Your task to perform on an android device: turn off location history Image 0: 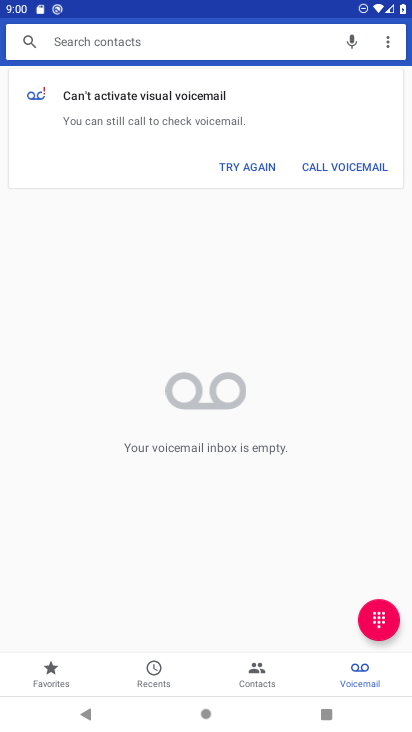
Step 0: press home button
Your task to perform on an android device: turn off location history Image 1: 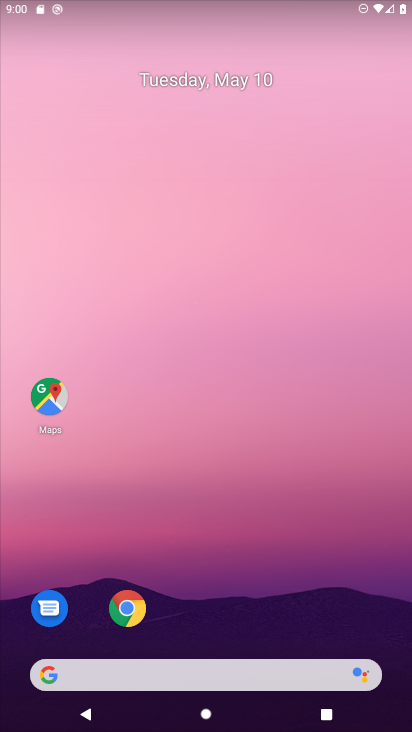
Step 1: drag from (352, 613) to (202, 16)
Your task to perform on an android device: turn off location history Image 2: 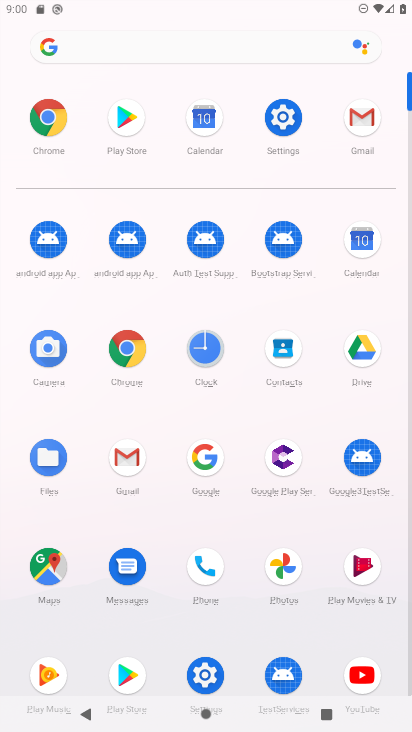
Step 2: click (194, 659)
Your task to perform on an android device: turn off location history Image 3: 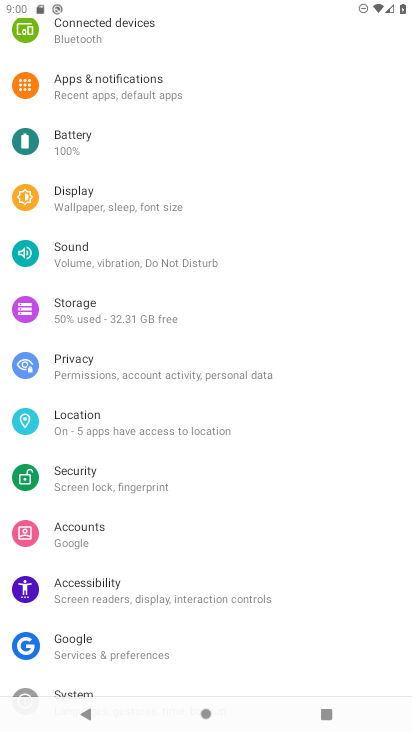
Step 3: click (134, 429)
Your task to perform on an android device: turn off location history Image 4: 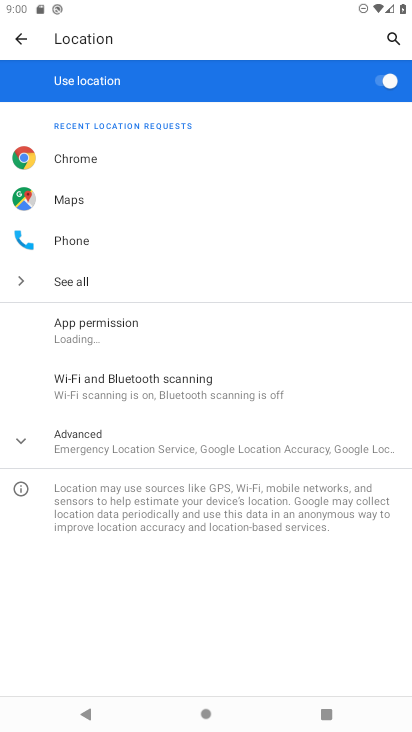
Step 4: click (39, 446)
Your task to perform on an android device: turn off location history Image 5: 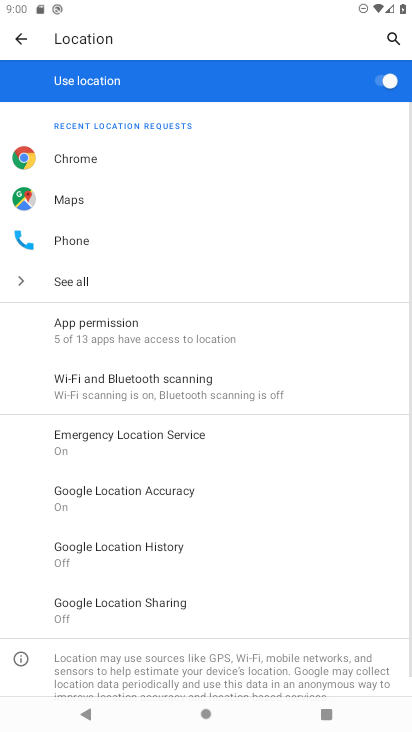
Step 5: click (144, 544)
Your task to perform on an android device: turn off location history Image 6: 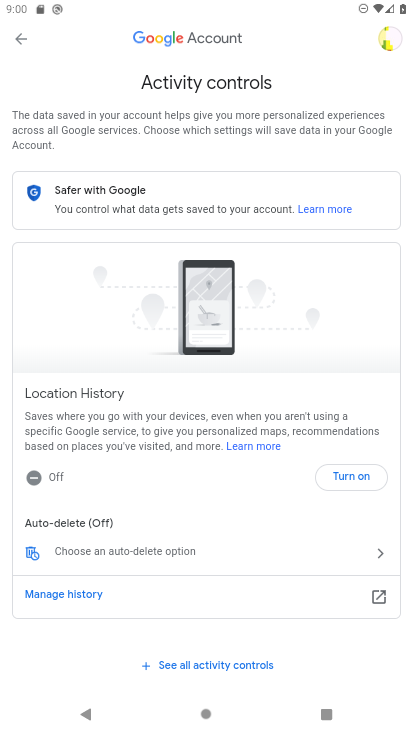
Step 6: click (350, 472)
Your task to perform on an android device: turn off location history Image 7: 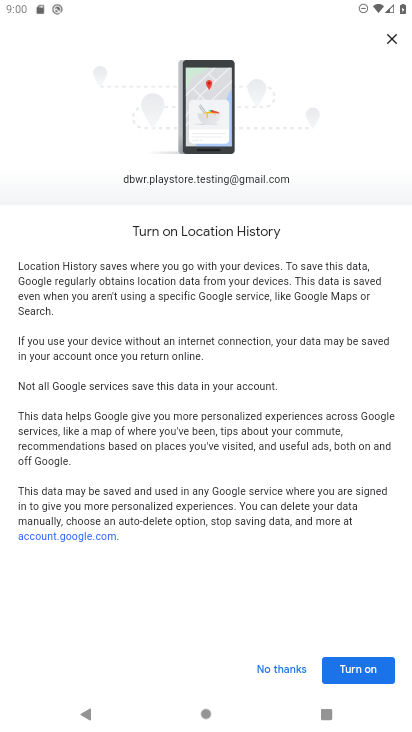
Step 7: task complete